Your task to perform on an android device: turn off picture-in-picture Image 0: 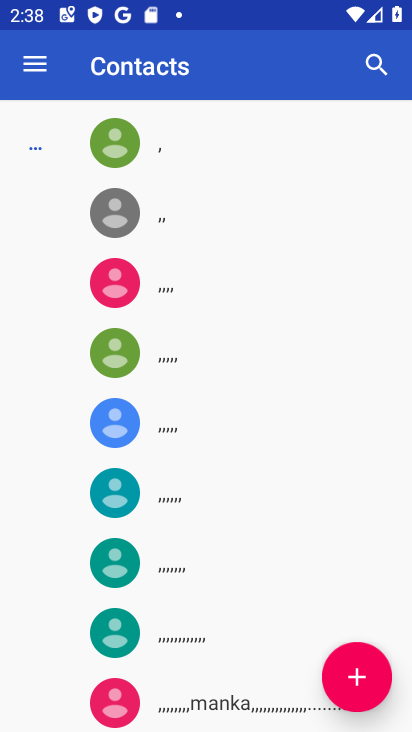
Step 0: press back button
Your task to perform on an android device: turn off picture-in-picture Image 1: 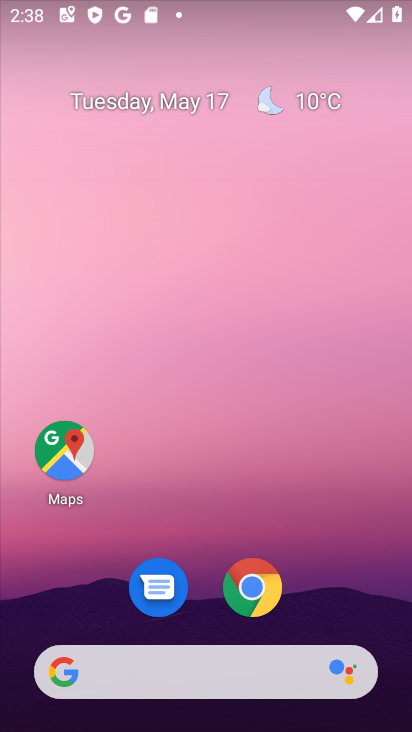
Step 1: drag from (303, 475) to (235, 47)
Your task to perform on an android device: turn off picture-in-picture Image 2: 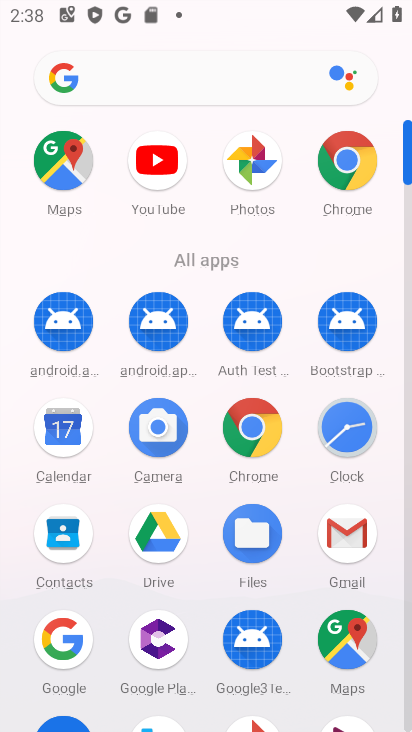
Step 2: drag from (23, 494) to (2, 193)
Your task to perform on an android device: turn off picture-in-picture Image 3: 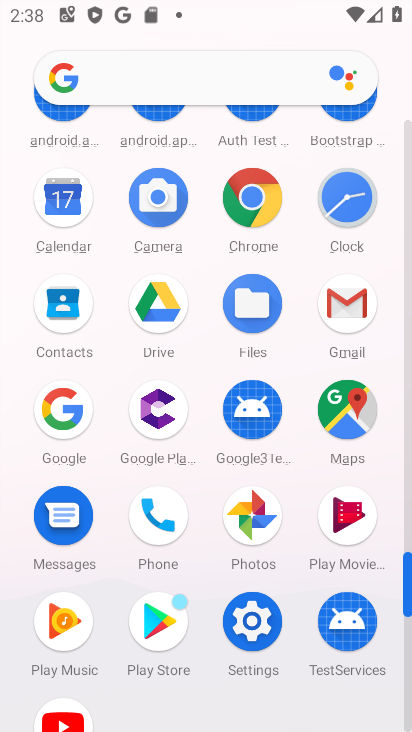
Step 3: click (254, 618)
Your task to perform on an android device: turn off picture-in-picture Image 4: 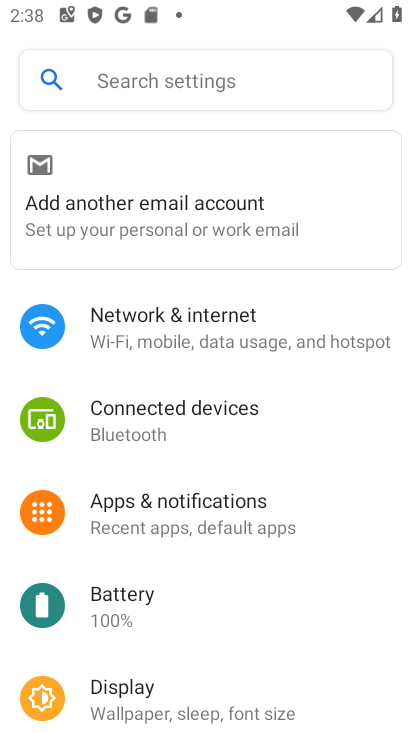
Step 4: click (217, 500)
Your task to perform on an android device: turn off picture-in-picture Image 5: 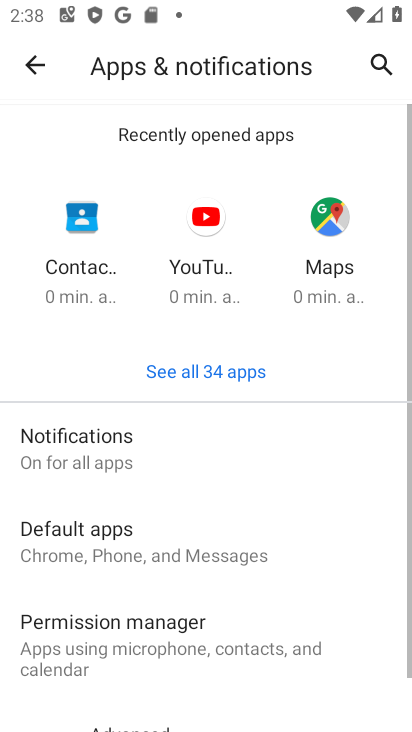
Step 5: drag from (324, 571) to (327, 143)
Your task to perform on an android device: turn off picture-in-picture Image 6: 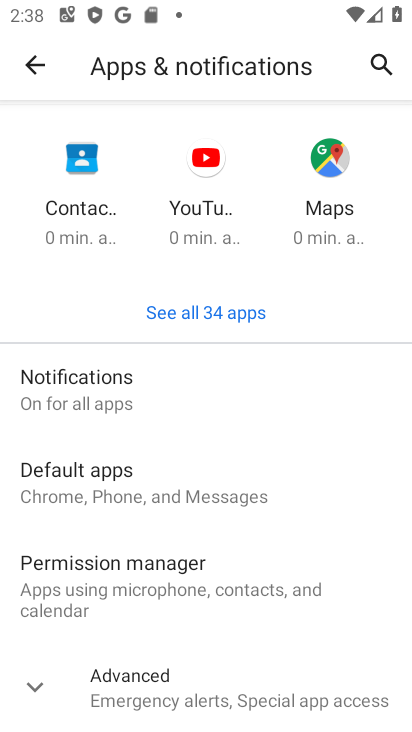
Step 6: click (115, 701)
Your task to perform on an android device: turn off picture-in-picture Image 7: 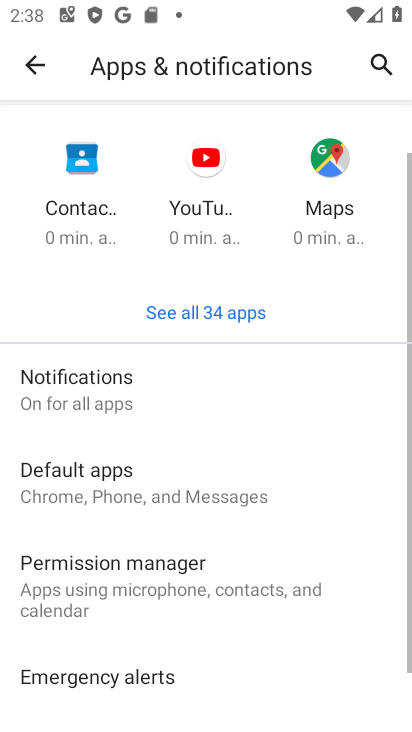
Step 7: drag from (293, 682) to (291, 205)
Your task to perform on an android device: turn off picture-in-picture Image 8: 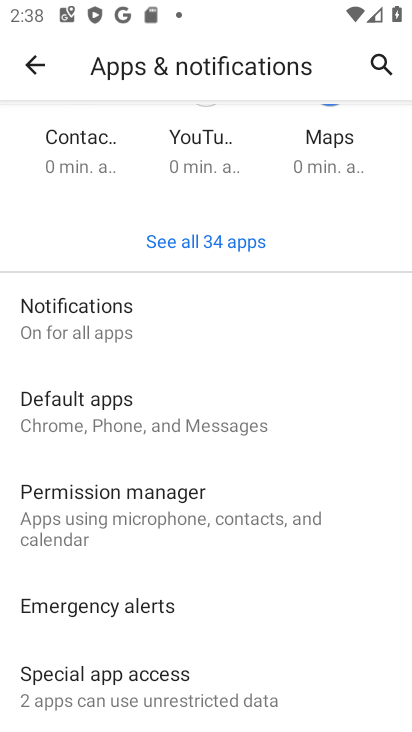
Step 8: click (153, 688)
Your task to perform on an android device: turn off picture-in-picture Image 9: 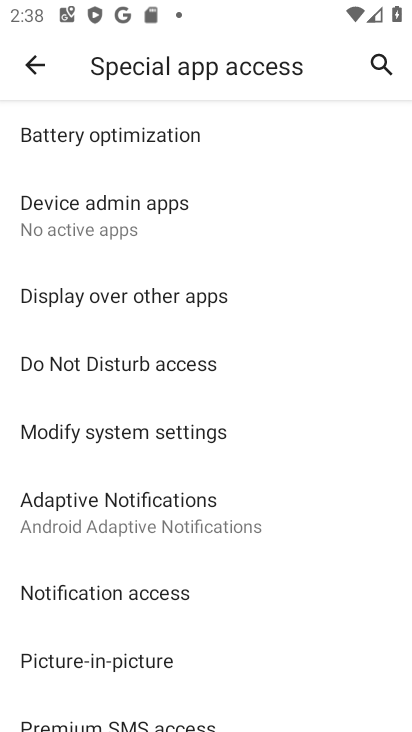
Step 9: click (165, 662)
Your task to perform on an android device: turn off picture-in-picture Image 10: 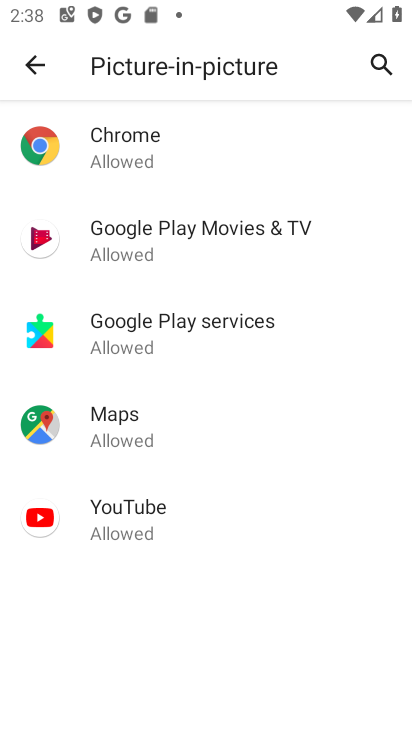
Step 10: click (188, 188)
Your task to perform on an android device: turn off picture-in-picture Image 11: 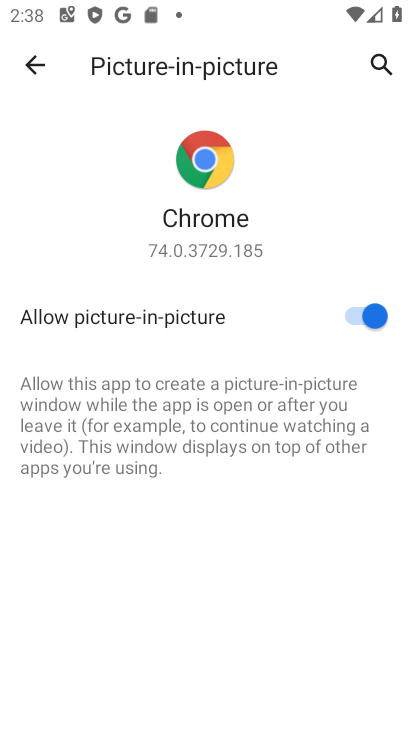
Step 11: click (353, 311)
Your task to perform on an android device: turn off picture-in-picture Image 12: 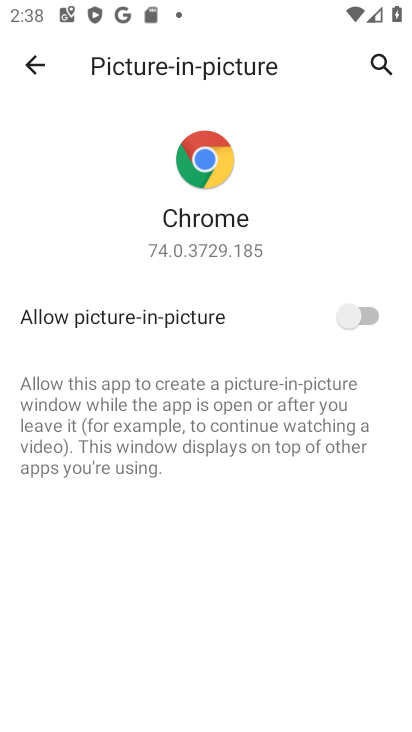
Step 12: click (41, 70)
Your task to perform on an android device: turn off picture-in-picture Image 13: 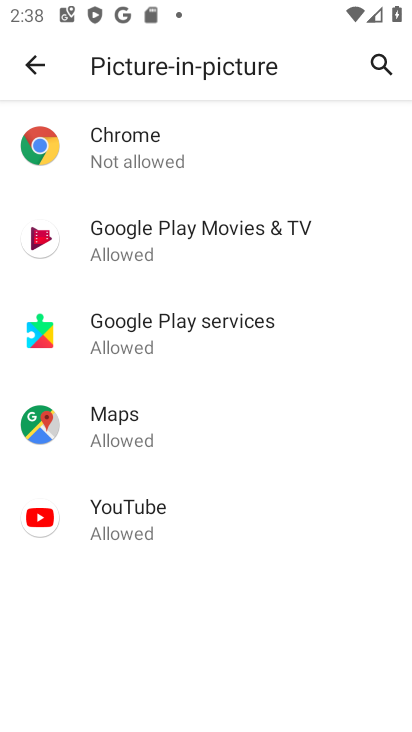
Step 13: click (162, 255)
Your task to perform on an android device: turn off picture-in-picture Image 14: 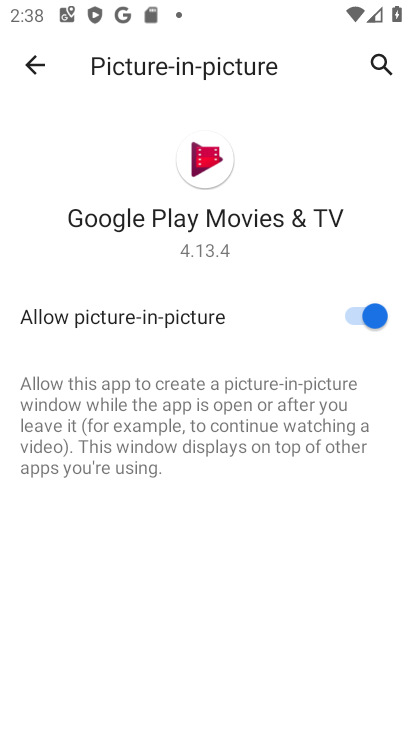
Step 14: click (344, 316)
Your task to perform on an android device: turn off picture-in-picture Image 15: 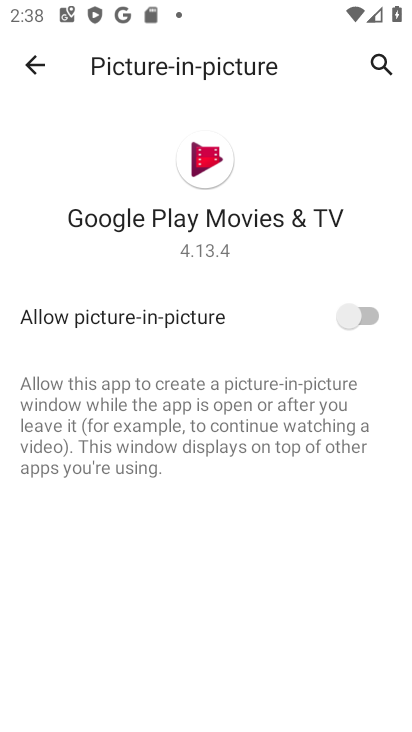
Step 15: click (28, 60)
Your task to perform on an android device: turn off picture-in-picture Image 16: 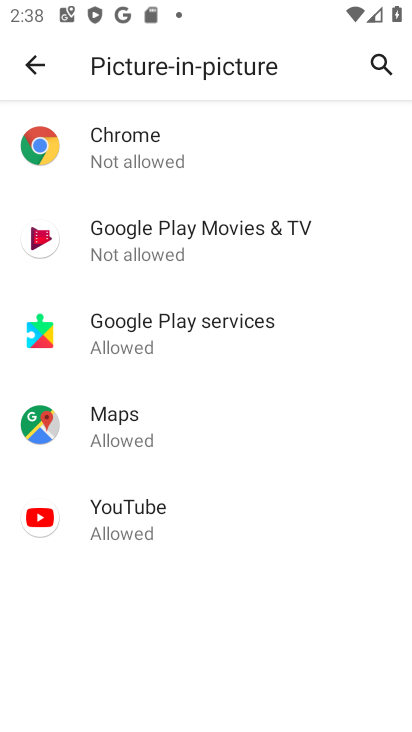
Step 16: click (154, 348)
Your task to perform on an android device: turn off picture-in-picture Image 17: 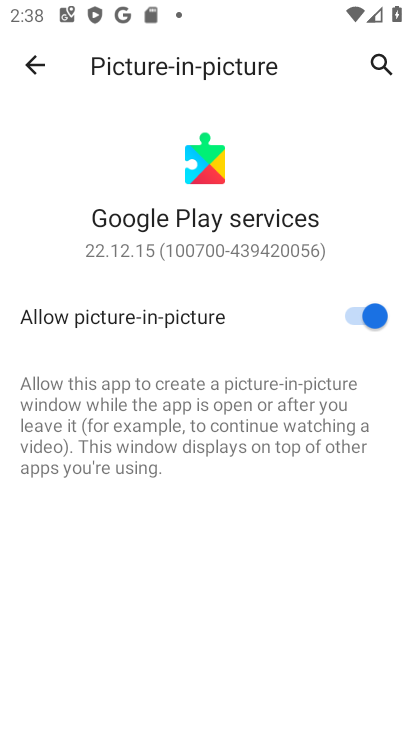
Step 17: click (352, 318)
Your task to perform on an android device: turn off picture-in-picture Image 18: 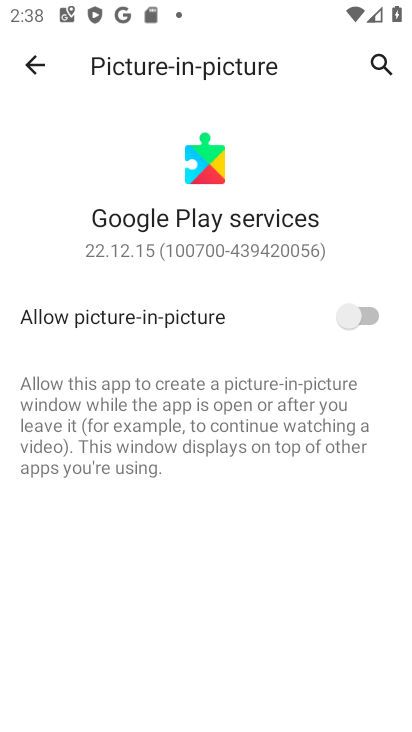
Step 18: click (49, 64)
Your task to perform on an android device: turn off picture-in-picture Image 19: 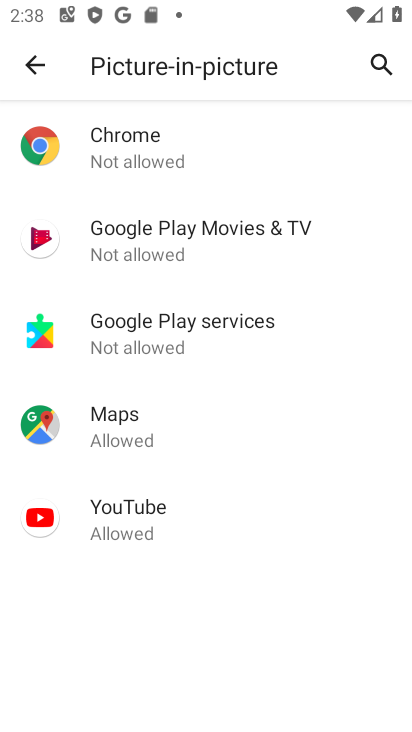
Step 19: click (103, 414)
Your task to perform on an android device: turn off picture-in-picture Image 20: 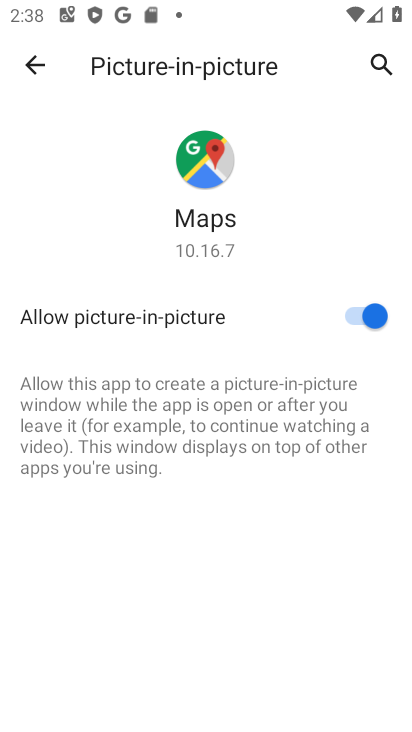
Step 20: click (366, 318)
Your task to perform on an android device: turn off picture-in-picture Image 21: 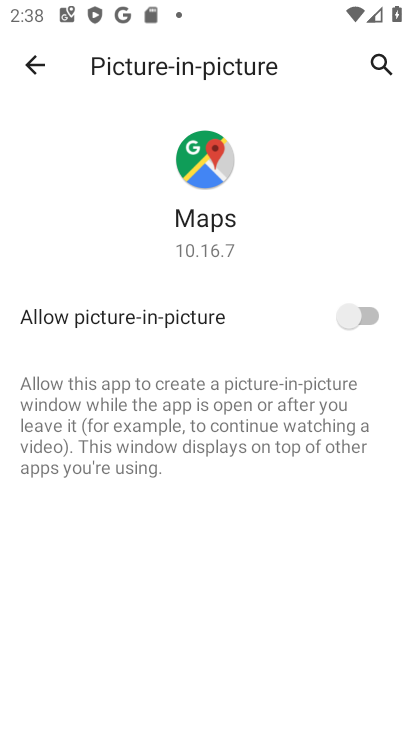
Step 21: click (42, 58)
Your task to perform on an android device: turn off picture-in-picture Image 22: 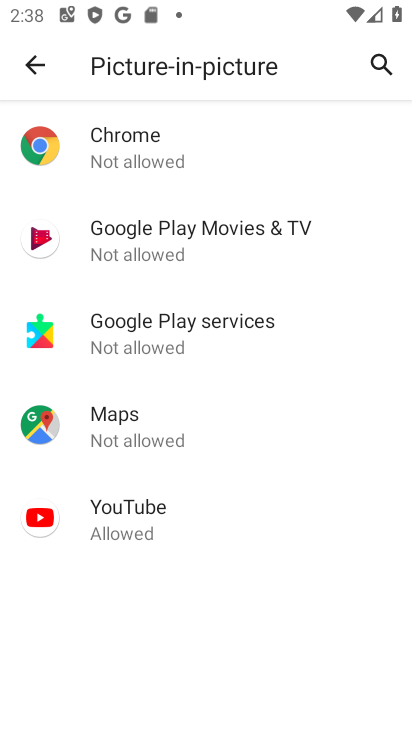
Step 22: click (127, 510)
Your task to perform on an android device: turn off picture-in-picture Image 23: 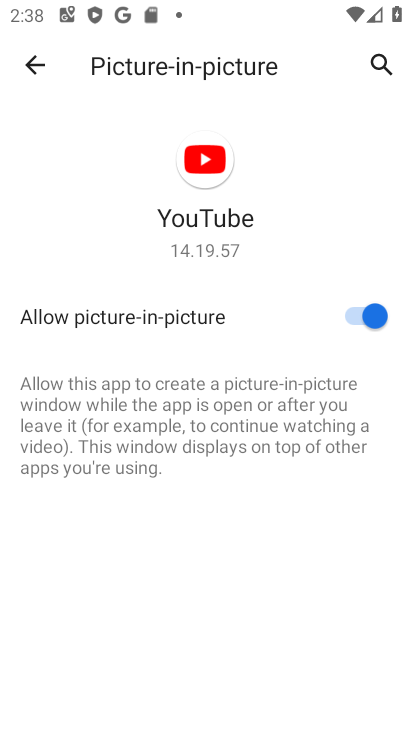
Step 23: click (377, 300)
Your task to perform on an android device: turn off picture-in-picture Image 24: 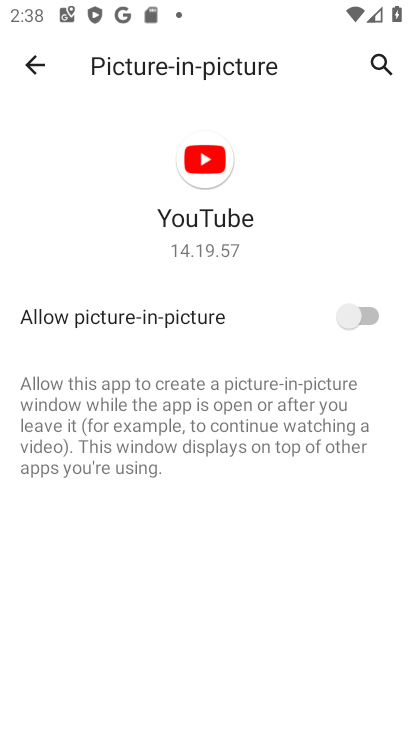
Step 24: click (38, 66)
Your task to perform on an android device: turn off picture-in-picture Image 25: 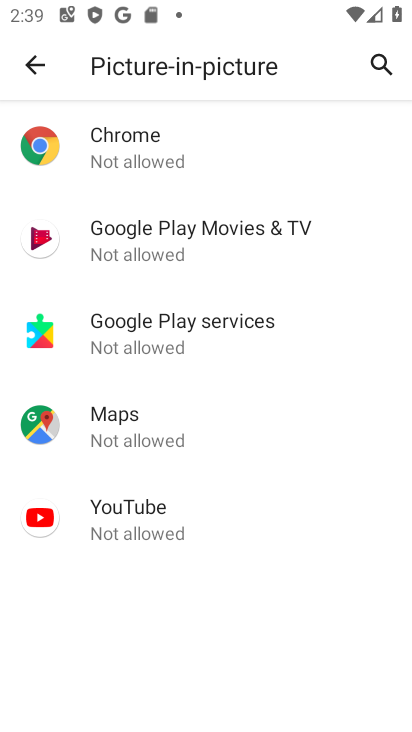
Step 25: task complete